Your task to perform on an android device: change the clock display to show seconds Image 0: 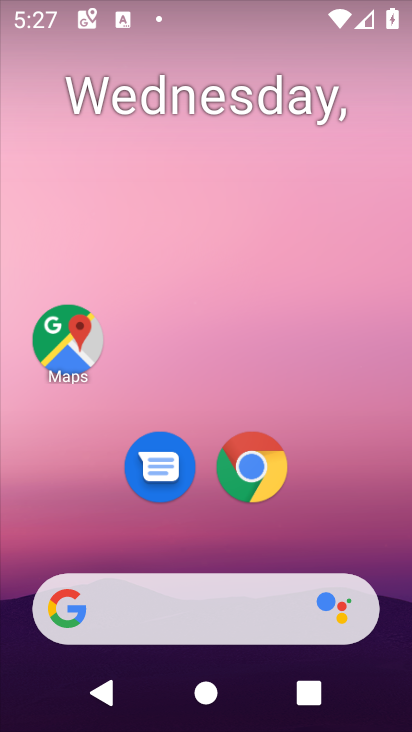
Step 0: drag from (295, 402) to (215, 20)
Your task to perform on an android device: change the clock display to show seconds Image 1: 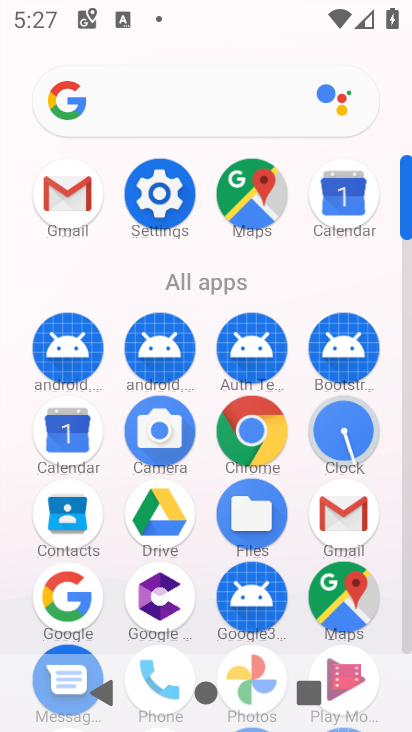
Step 1: click (339, 434)
Your task to perform on an android device: change the clock display to show seconds Image 2: 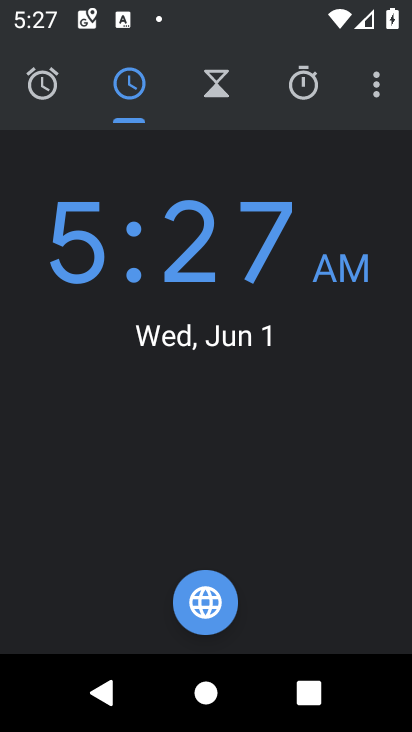
Step 2: click (380, 80)
Your task to perform on an android device: change the clock display to show seconds Image 3: 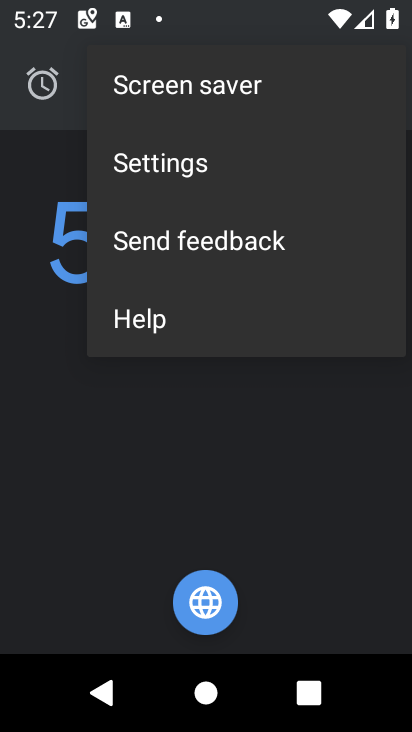
Step 3: click (239, 168)
Your task to perform on an android device: change the clock display to show seconds Image 4: 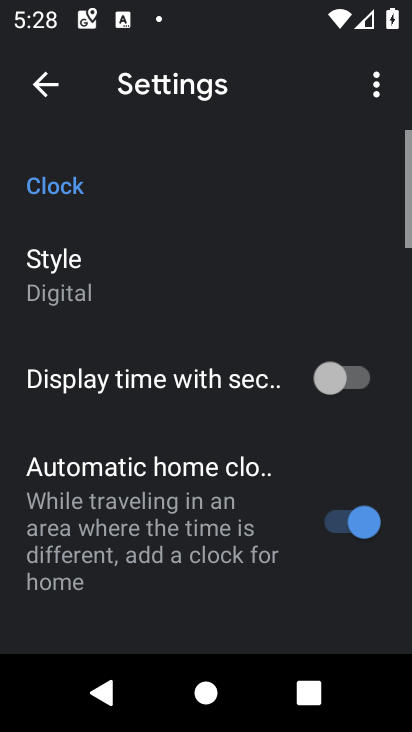
Step 4: click (369, 370)
Your task to perform on an android device: change the clock display to show seconds Image 5: 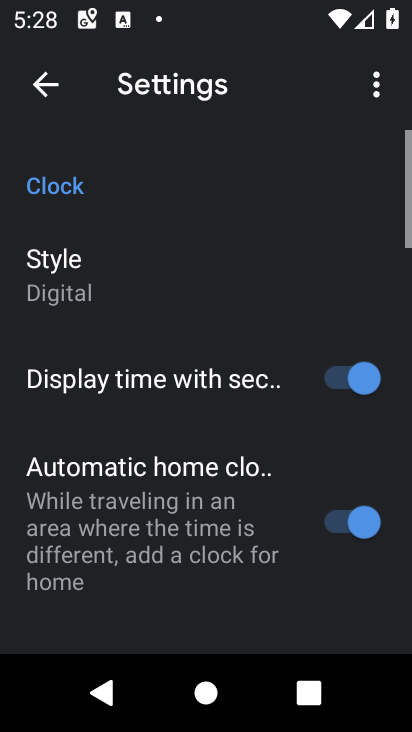
Step 5: task complete